Your task to perform on an android device: Go to Reddit.com Image 0: 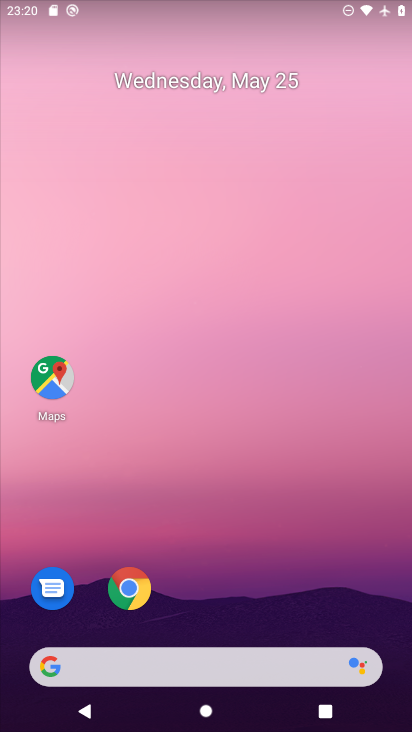
Step 0: click (135, 590)
Your task to perform on an android device: Go to Reddit.com Image 1: 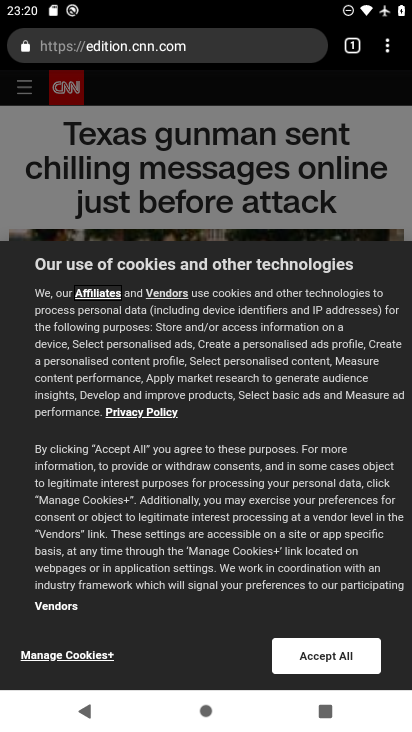
Step 1: click (202, 39)
Your task to perform on an android device: Go to Reddit.com Image 2: 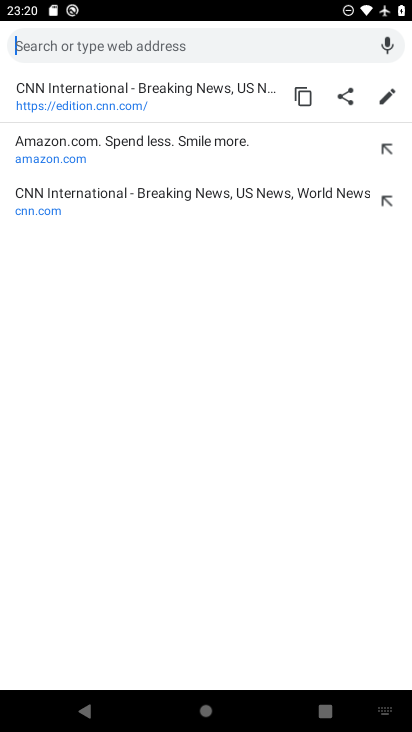
Step 2: type "reddit.com"
Your task to perform on an android device: Go to Reddit.com Image 3: 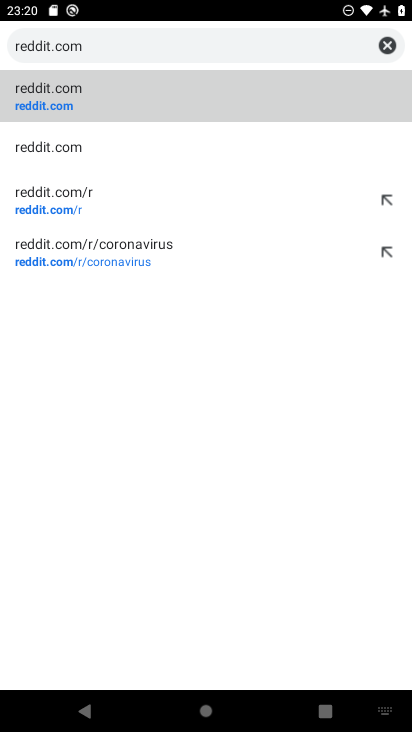
Step 3: click (51, 107)
Your task to perform on an android device: Go to Reddit.com Image 4: 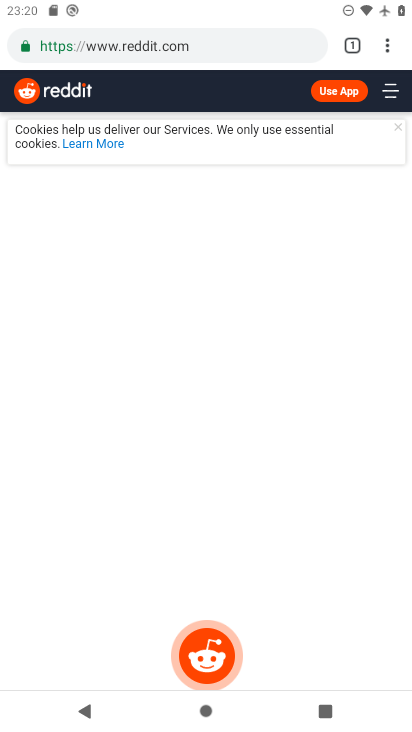
Step 4: task complete